Your task to perform on an android device: change alarm snooze length Image 0: 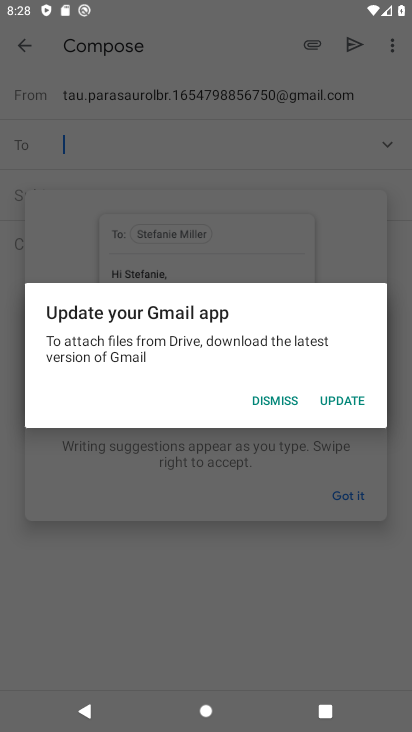
Step 0: press home button
Your task to perform on an android device: change alarm snooze length Image 1: 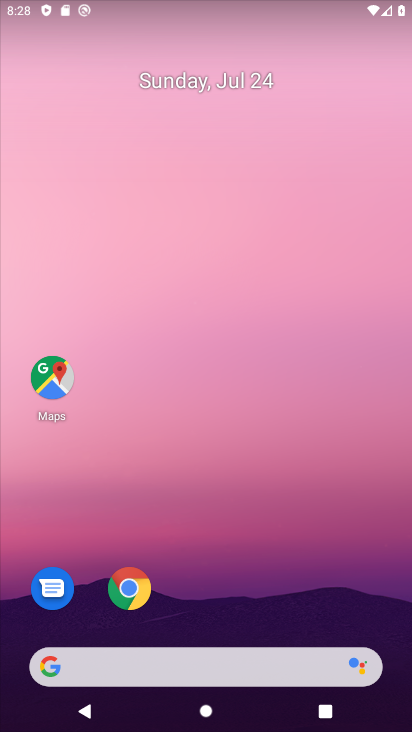
Step 1: drag from (321, 558) to (315, 14)
Your task to perform on an android device: change alarm snooze length Image 2: 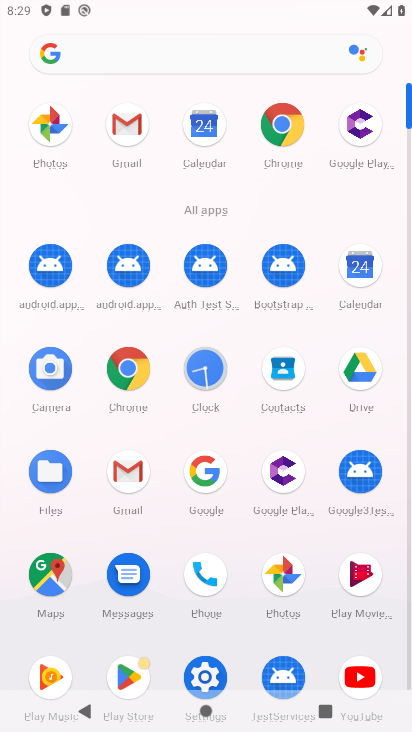
Step 2: click (218, 358)
Your task to perform on an android device: change alarm snooze length Image 3: 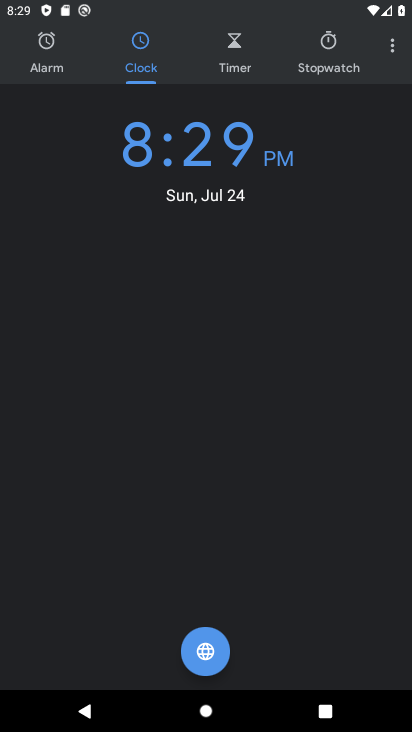
Step 3: click (387, 44)
Your task to perform on an android device: change alarm snooze length Image 4: 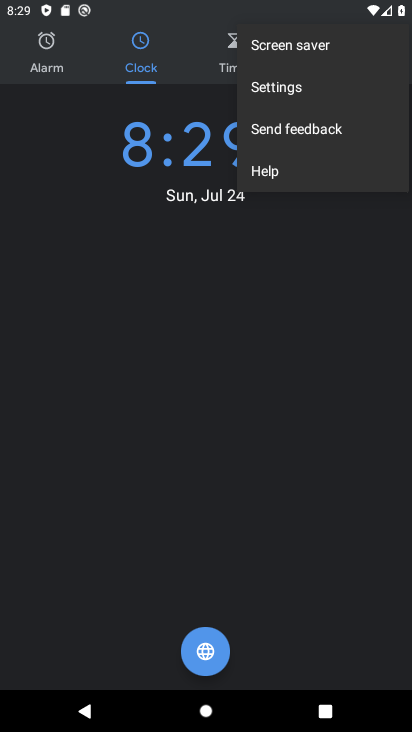
Step 4: click (326, 87)
Your task to perform on an android device: change alarm snooze length Image 5: 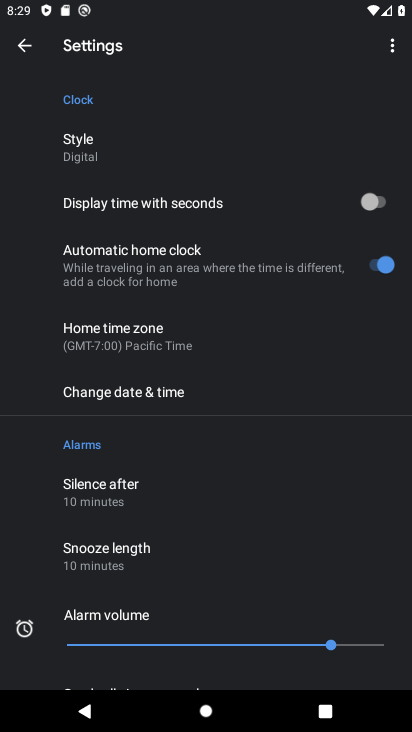
Step 5: click (147, 540)
Your task to perform on an android device: change alarm snooze length Image 6: 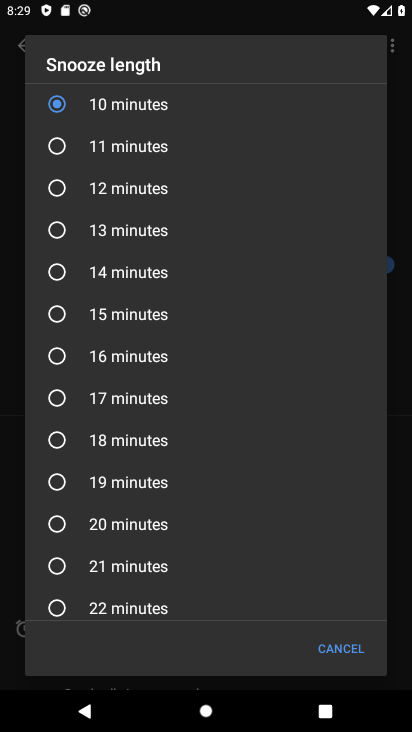
Step 6: click (141, 156)
Your task to perform on an android device: change alarm snooze length Image 7: 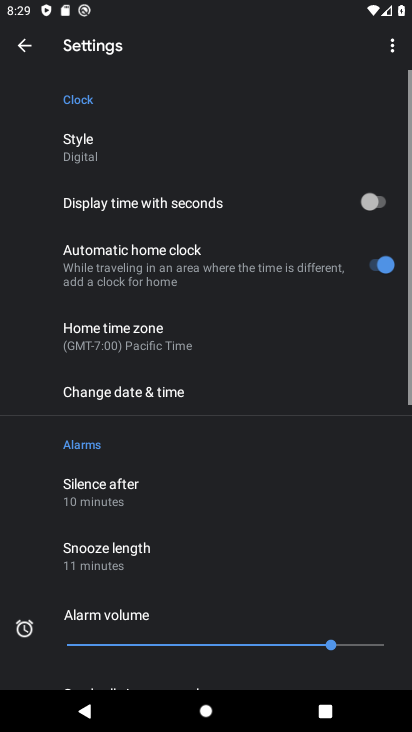
Step 7: task complete